Your task to perform on an android device: find snoozed emails in the gmail app Image 0: 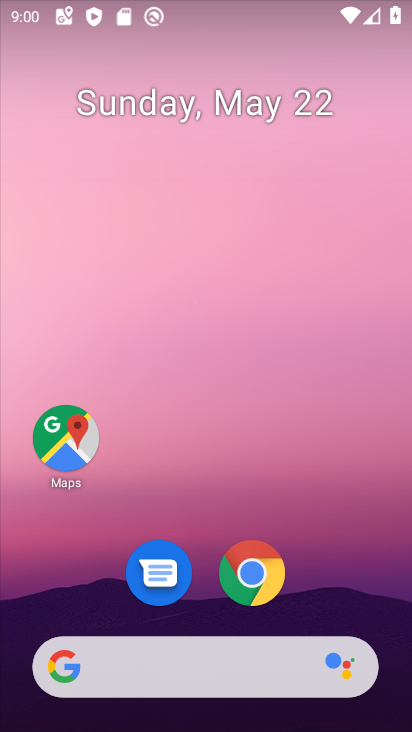
Step 0: drag from (337, 639) to (307, 71)
Your task to perform on an android device: find snoozed emails in the gmail app Image 1: 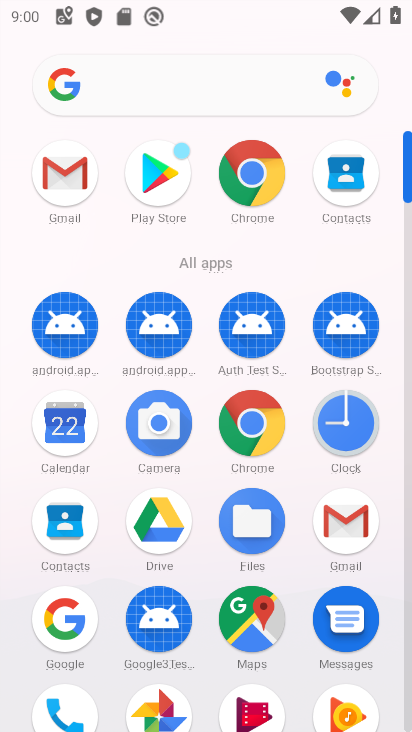
Step 1: click (350, 510)
Your task to perform on an android device: find snoozed emails in the gmail app Image 2: 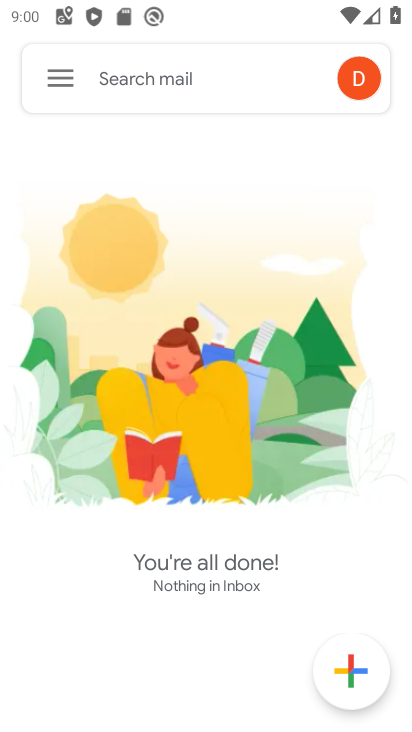
Step 2: click (47, 87)
Your task to perform on an android device: find snoozed emails in the gmail app Image 3: 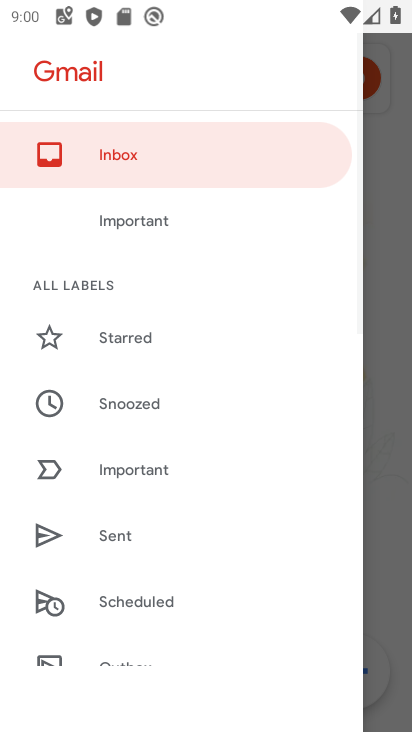
Step 3: drag from (205, 591) to (273, 48)
Your task to perform on an android device: find snoozed emails in the gmail app Image 4: 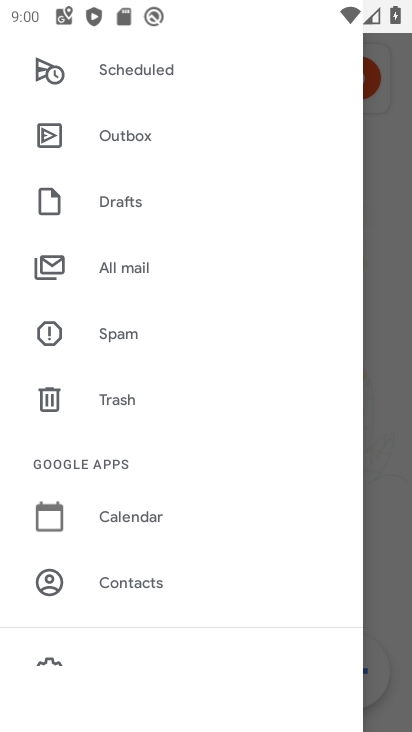
Step 4: drag from (138, 131) to (151, 435)
Your task to perform on an android device: find snoozed emails in the gmail app Image 5: 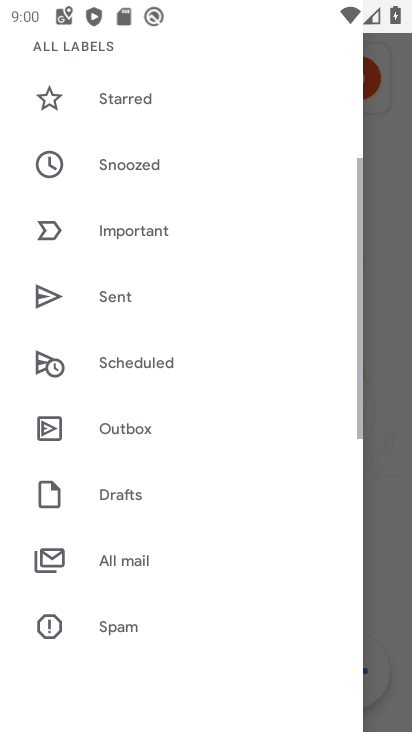
Step 5: click (153, 160)
Your task to perform on an android device: find snoozed emails in the gmail app Image 6: 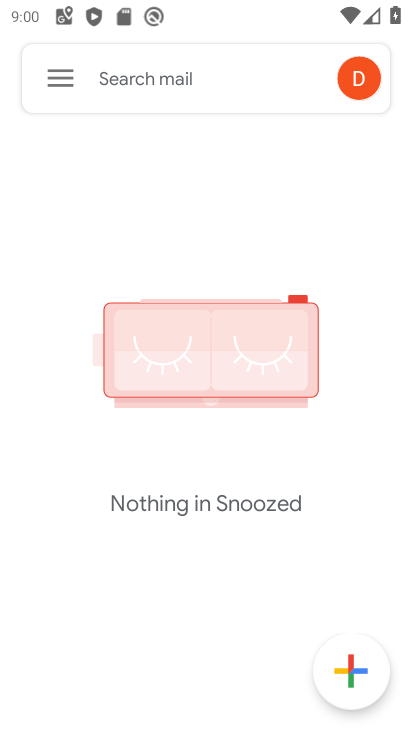
Step 6: task complete